Your task to perform on an android device: Clear the cart on ebay.com. Search for "macbook pro 15 inch" on ebay.com, select the first entry, add it to the cart, then select checkout. Image 0: 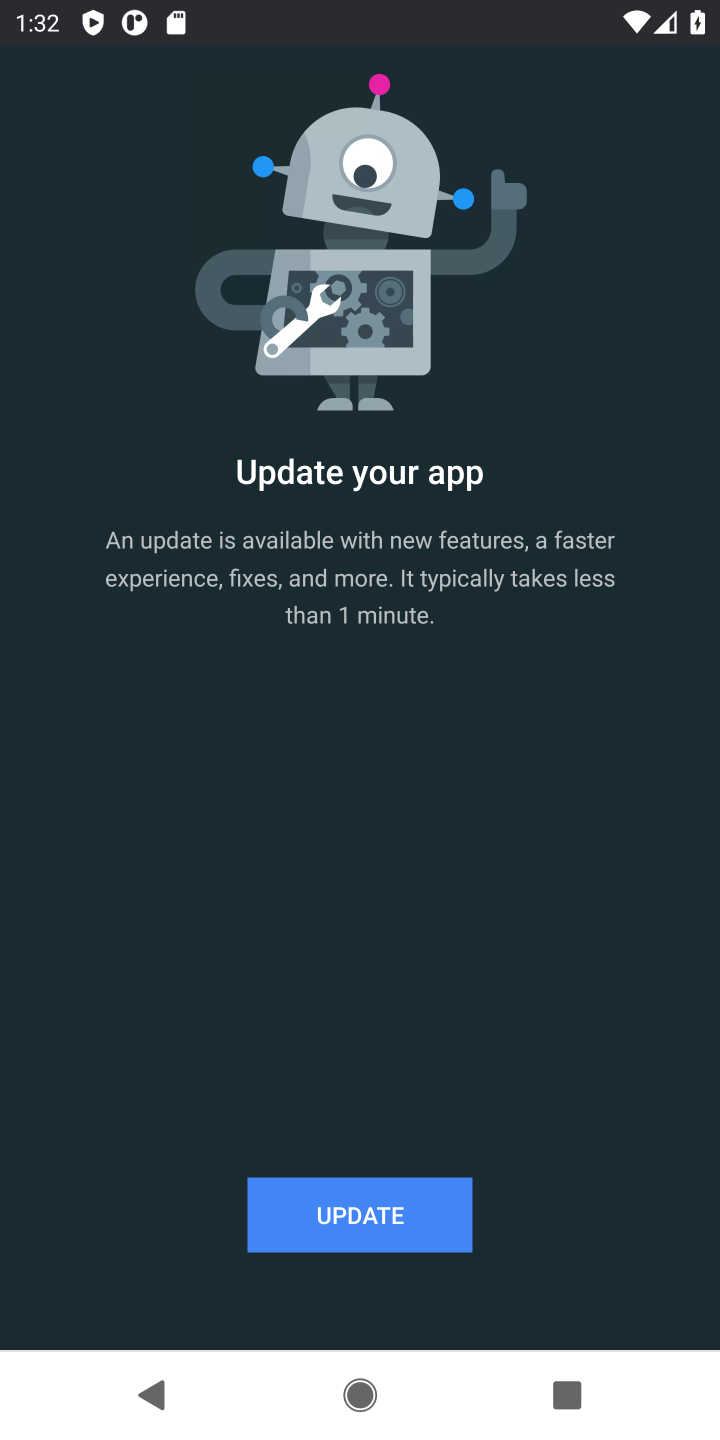
Step 0: press home button
Your task to perform on an android device: Clear the cart on ebay.com. Search for "macbook pro 15 inch" on ebay.com, select the first entry, add it to the cart, then select checkout. Image 1: 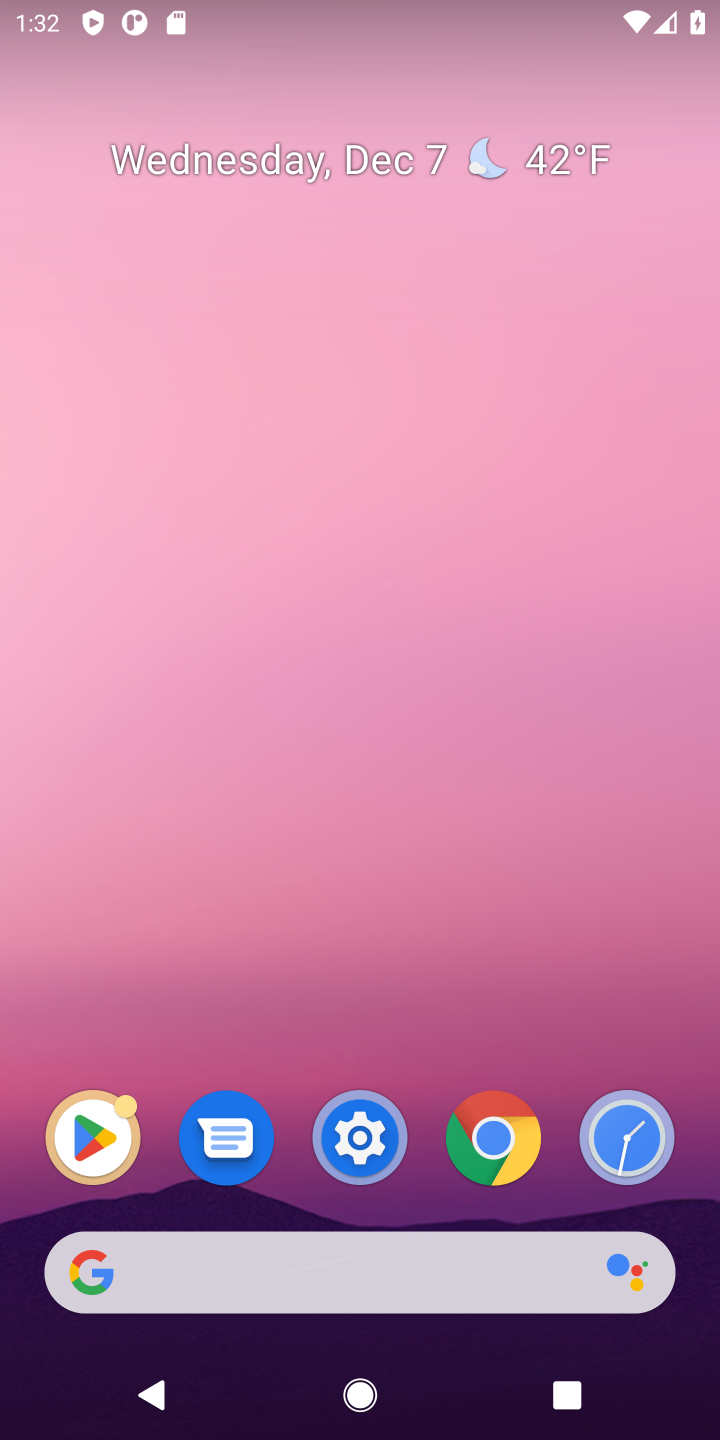
Step 1: click (494, 1274)
Your task to perform on an android device: Clear the cart on ebay.com. Search for "macbook pro 15 inch" on ebay.com, select the first entry, add it to the cart, then select checkout. Image 2: 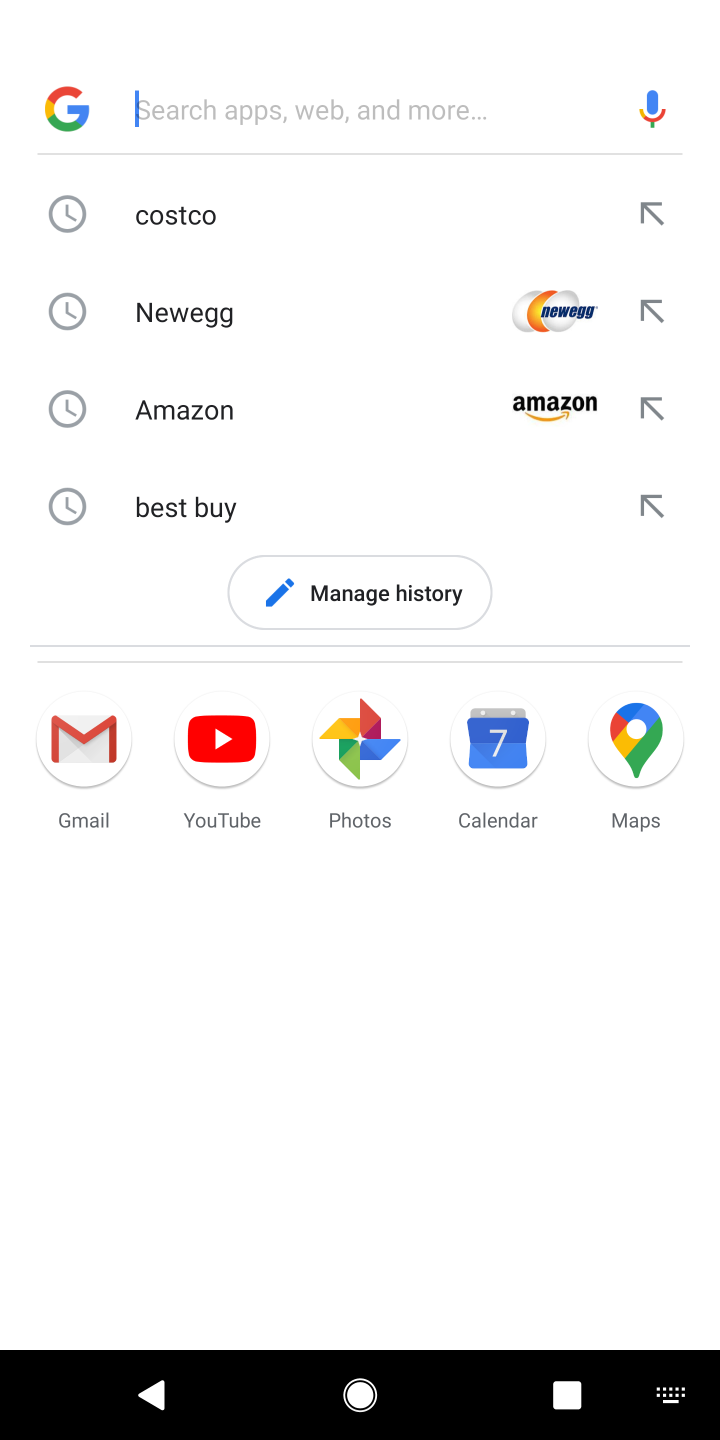
Step 2: type "ebay"
Your task to perform on an android device: Clear the cart on ebay.com. Search for "macbook pro 15 inch" on ebay.com, select the first entry, add it to the cart, then select checkout. Image 3: 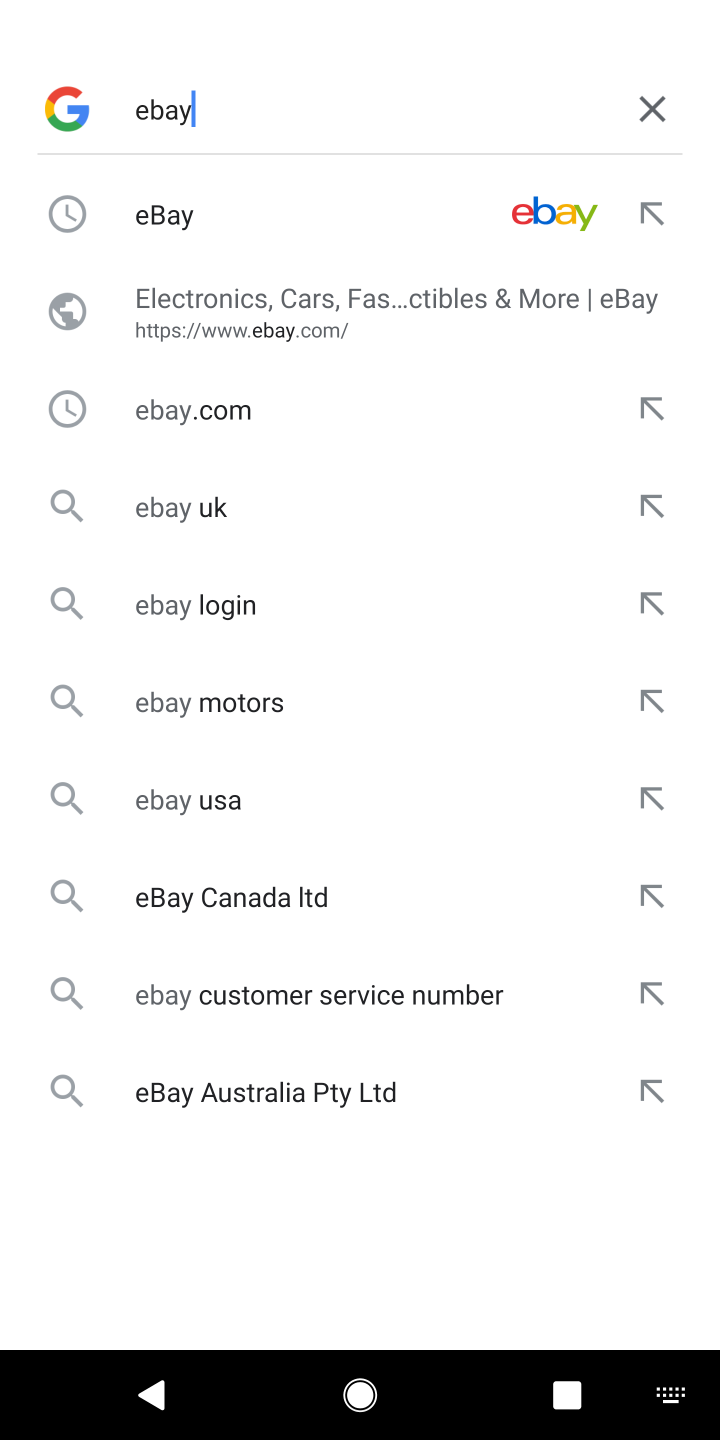
Step 3: click (167, 209)
Your task to perform on an android device: Clear the cart on ebay.com. Search for "macbook pro 15 inch" on ebay.com, select the first entry, add it to the cart, then select checkout. Image 4: 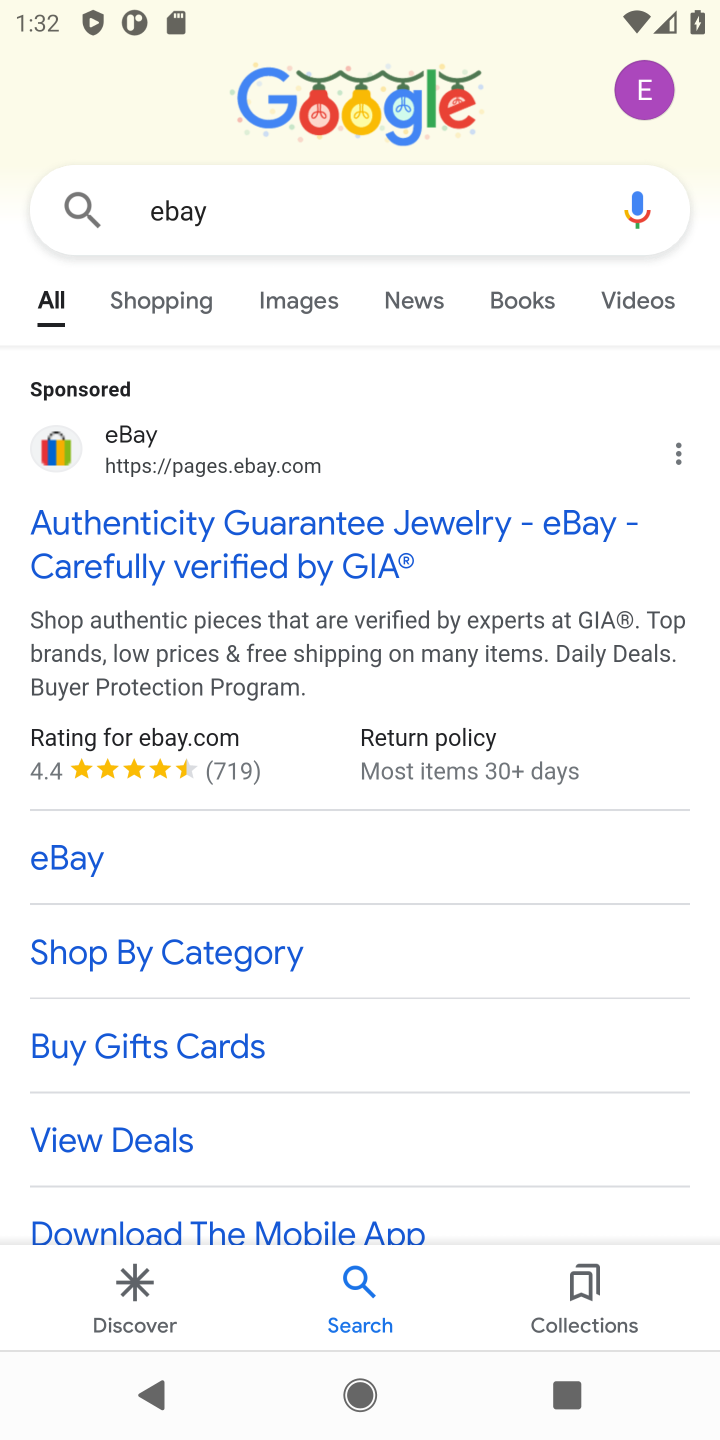
Step 4: click (265, 551)
Your task to perform on an android device: Clear the cart on ebay.com. Search for "macbook pro 15 inch" on ebay.com, select the first entry, add it to the cart, then select checkout. Image 5: 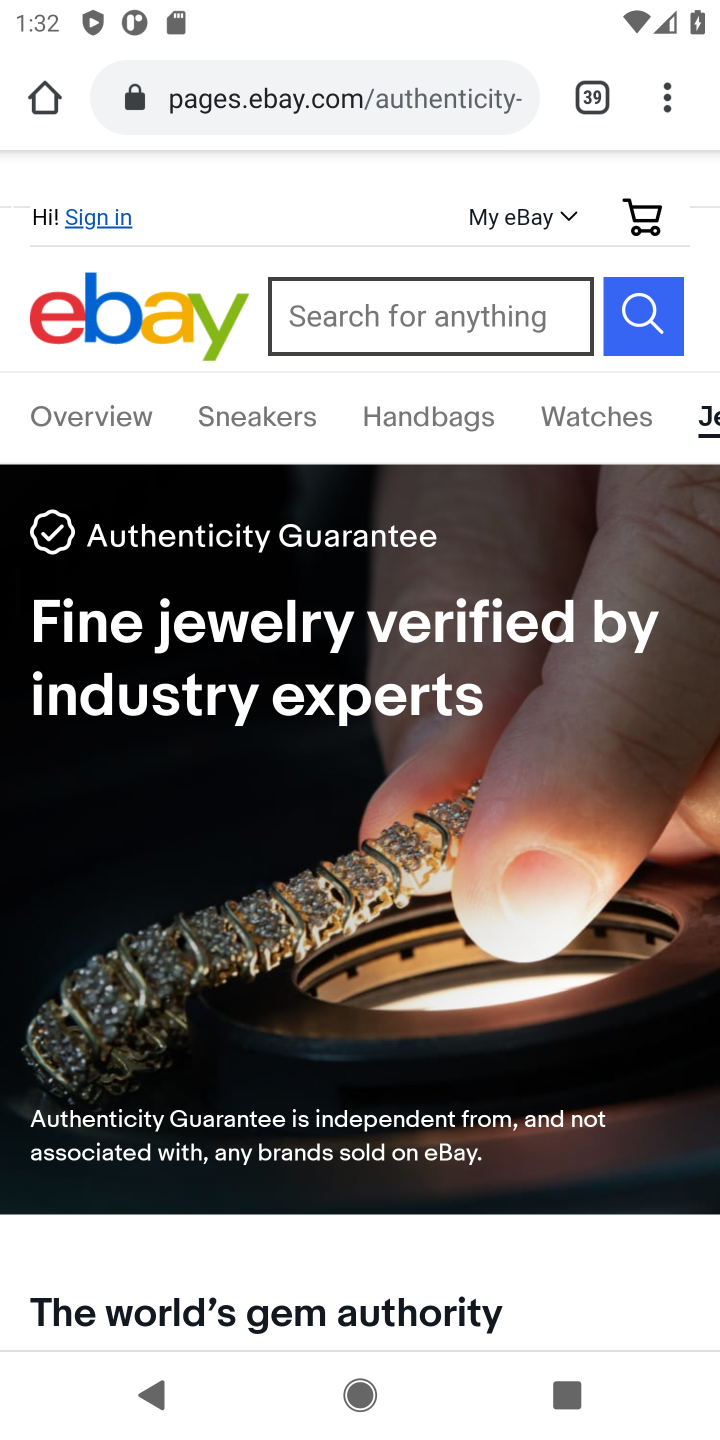
Step 5: click (426, 342)
Your task to perform on an android device: Clear the cart on ebay.com. Search for "macbook pro 15 inch" on ebay.com, select the first entry, add it to the cart, then select checkout. Image 6: 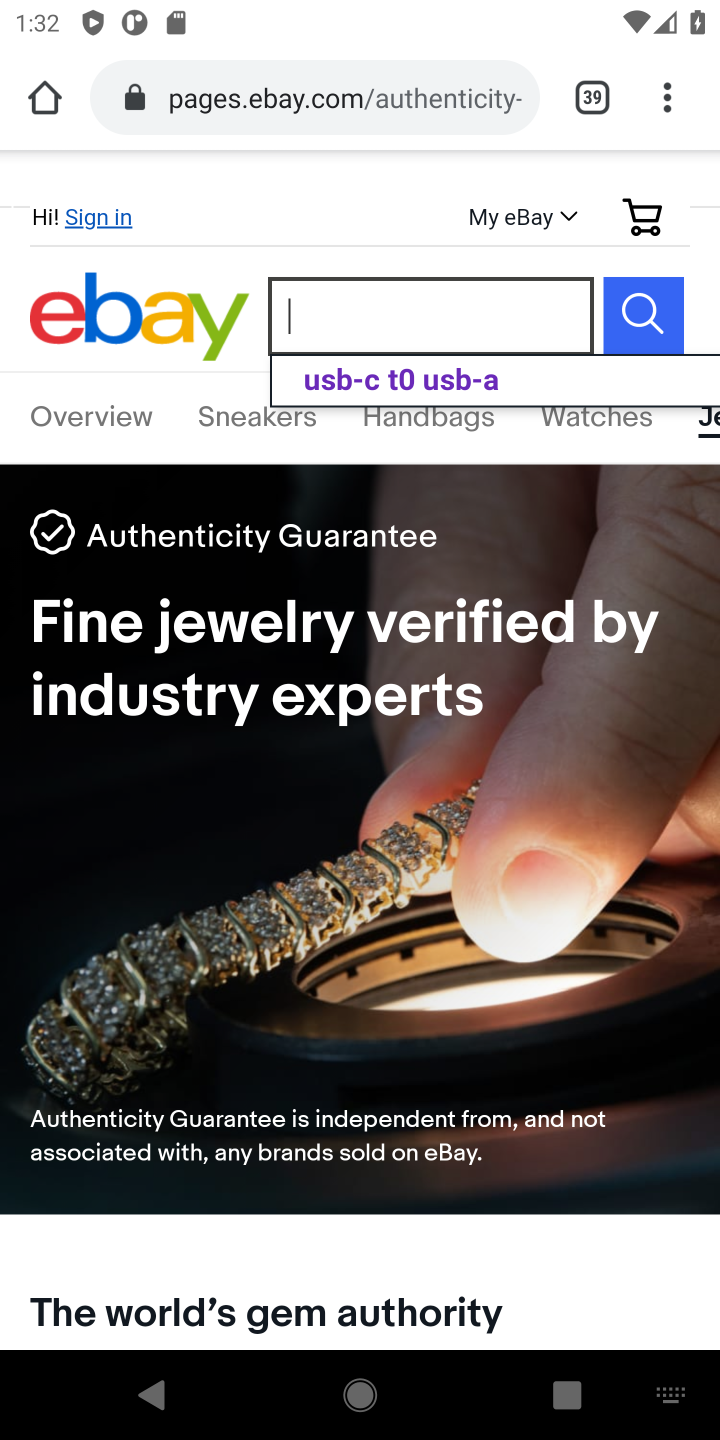
Step 6: type "macbook pro 15 inch"
Your task to perform on an android device: Clear the cart on ebay.com. Search for "macbook pro 15 inch" on ebay.com, select the first entry, add it to the cart, then select checkout. Image 7: 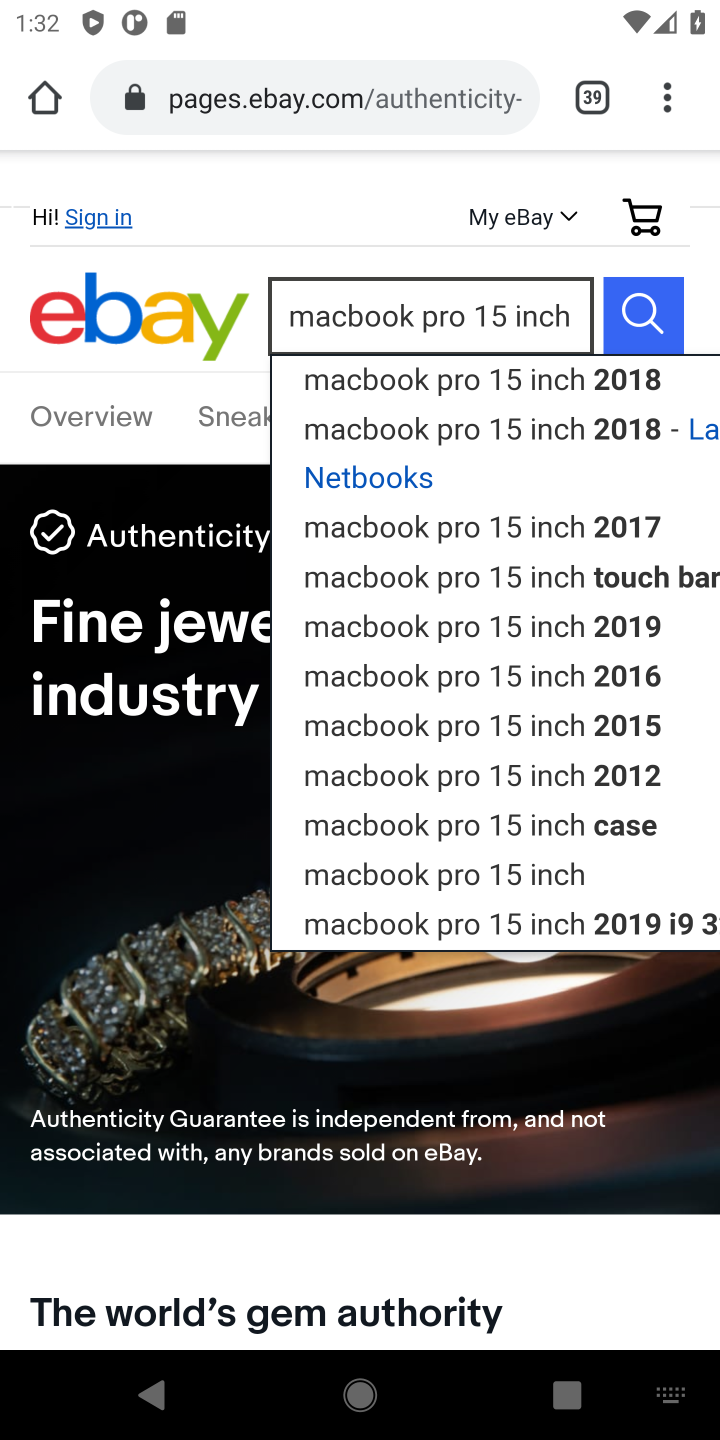
Step 7: click (640, 304)
Your task to perform on an android device: Clear the cart on ebay.com. Search for "macbook pro 15 inch" on ebay.com, select the first entry, add it to the cart, then select checkout. Image 8: 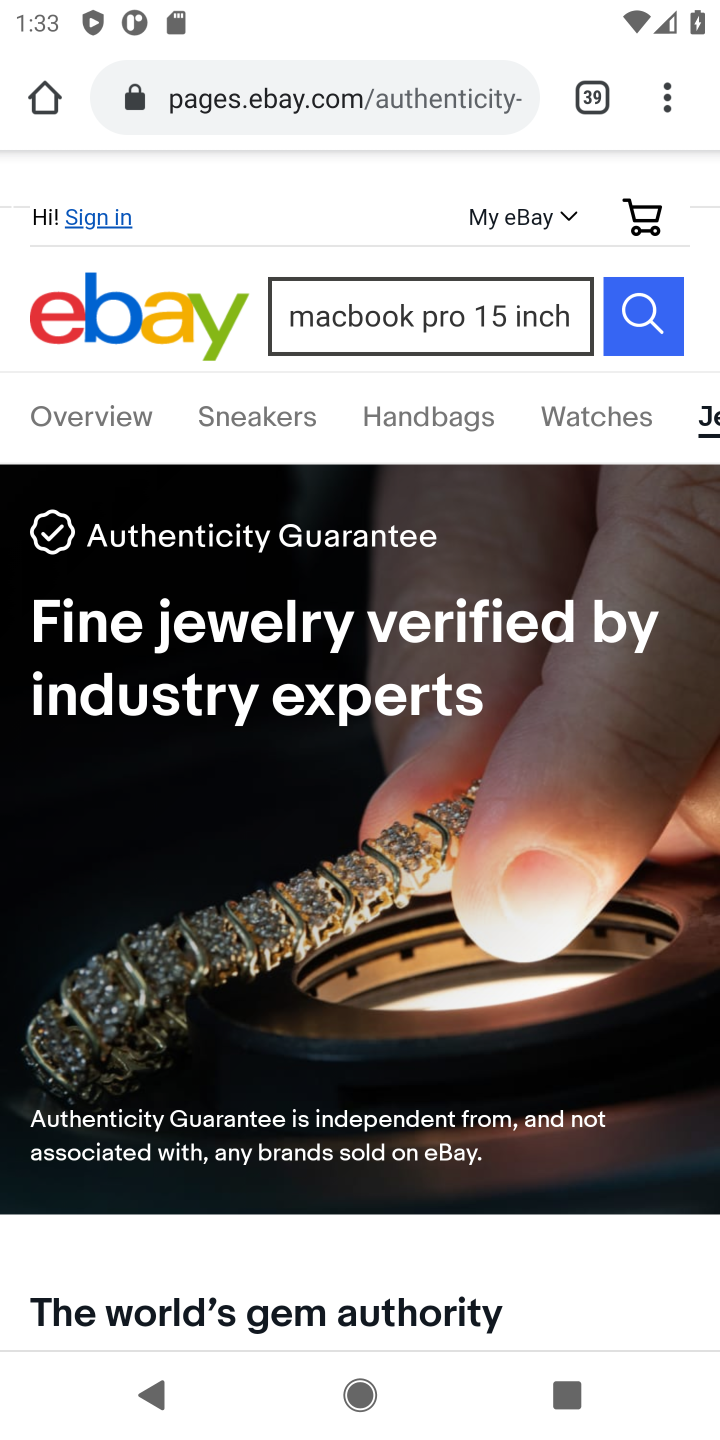
Step 8: task complete